Your task to perform on an android device: Go to Android settings Image 0: 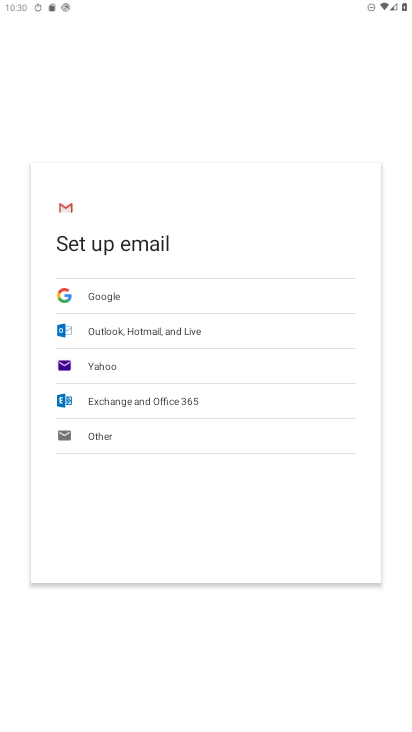
Step 0: press home button
Your task to perform on an android device: Go to Android settings Image 1: 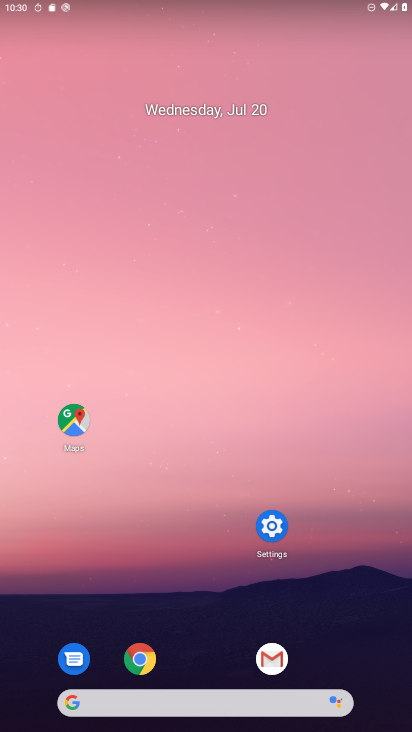
Step 1: click (273, 531)
Your task to perform on an android device: Go to Android settings Image 2: 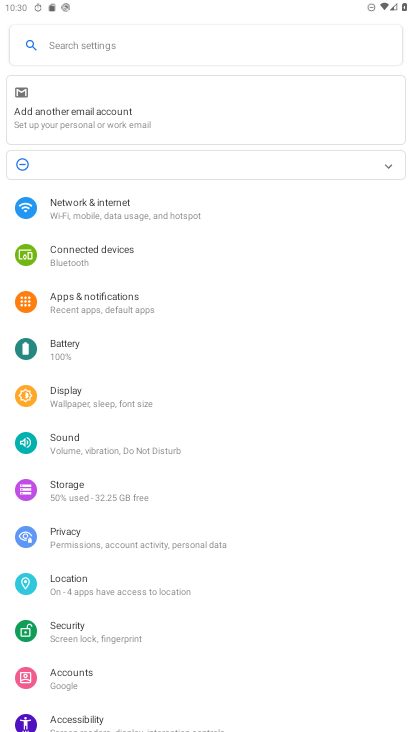
Step 2: click (72, 43)
Your task to perform on an android device: Go to Android settings Image 3: 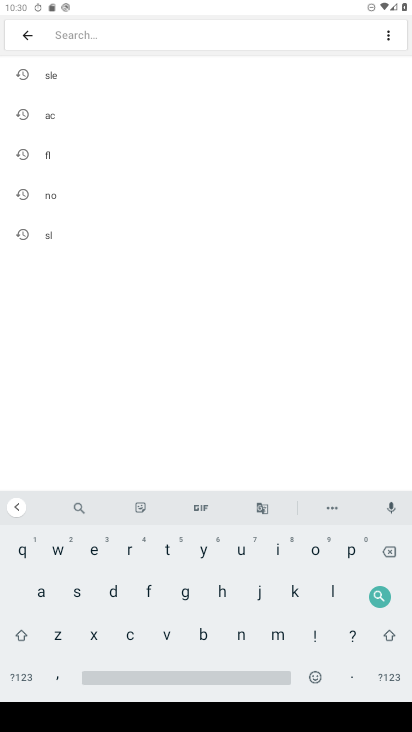
Step 3: click (36, 587)
Your task to perform on an android device: Go to Android settings Image 4: 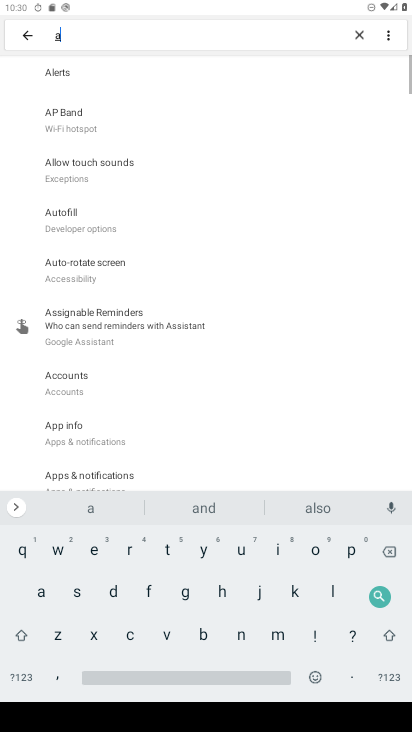
Step 4: click (245, 632)
Your task to perform on an android device: Go to Android settings Image 5: 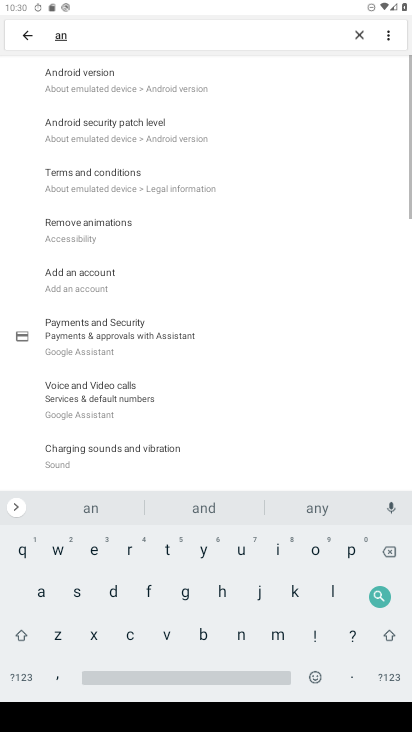
Step 5: click (121, 83)
Your task to perform on an android device: Go to Android settings Image 6: 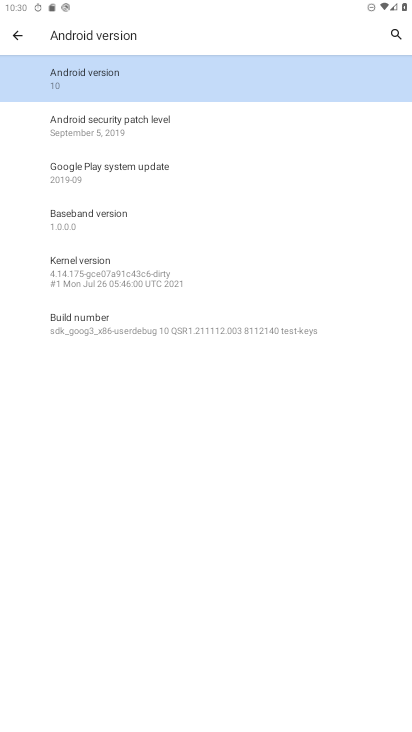
Step 6: click (101, 82)
Your task to perform on an android device: Go to Android settings Image 7: 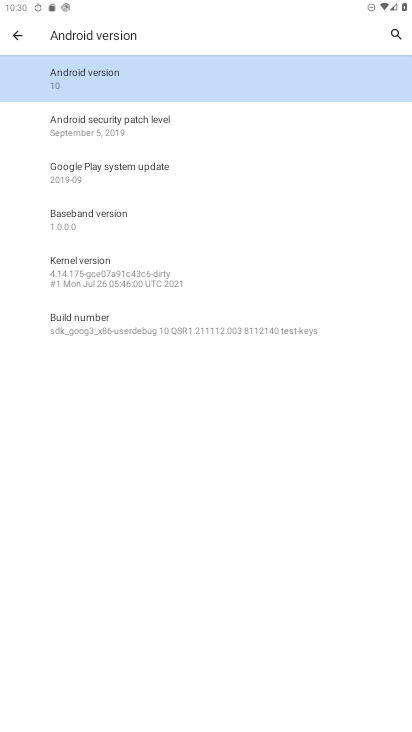
Step 7: task complete